Your task to perform on an android device: turn notification dots on Image 0: 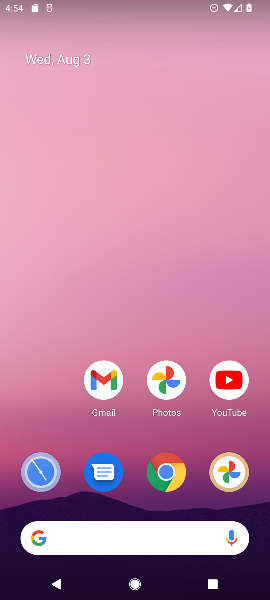
Step 0: drag from (192, 476) to (96, 5)
Your task to perform on an android device: turn notification dots on Image 1: 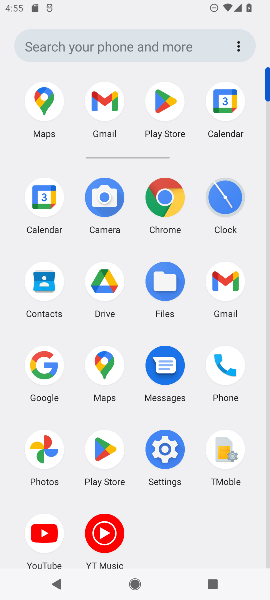
Step 1: click (163, 472)
Your task to perform on an android device: turn notification dots on Image 2: 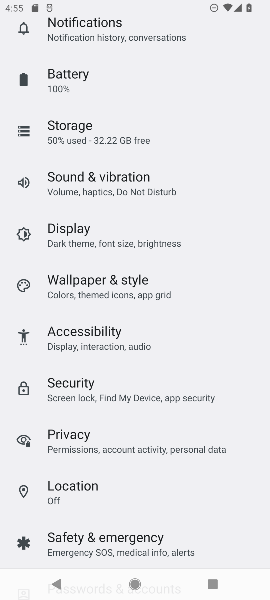
Step 2: drag from (84, 176) to (137, 508)
Your task to perform on an android device: turn notification dots on Image 3: 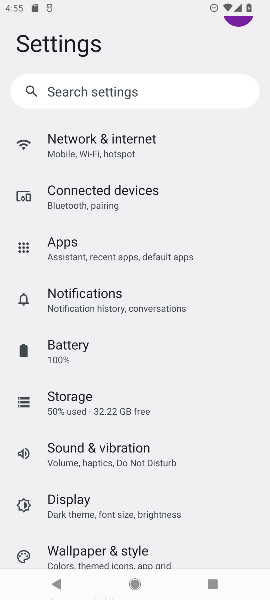
Step 3: click (103, 304)
Your task to perform on an android device: turn notification dots on Image 4: 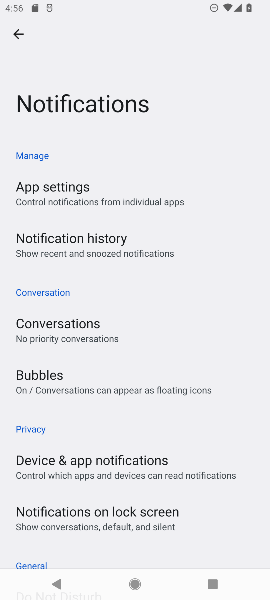
Step 4: task complete